Your task to perform on an android device: Search for Mexican restaurants on Maps Image 0: 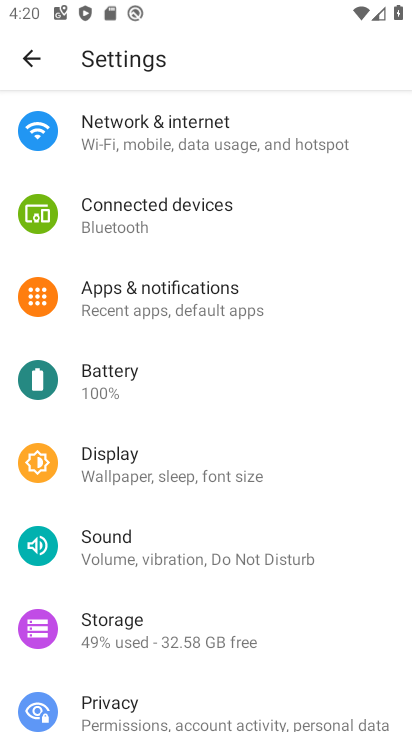
Step 0: press home button
Your task to perform on an android device: Search for Mexican restaurants on Maps Image 1: 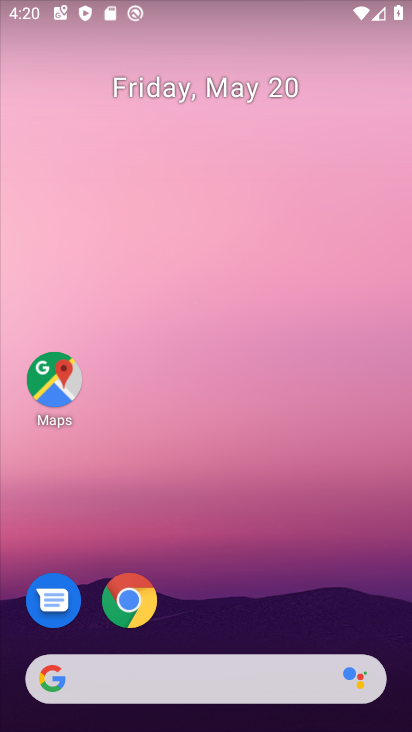
Step 1: click (59, 384)
Your task to perform on an android device: Search for Mexican restaurants on Maps Image 2: 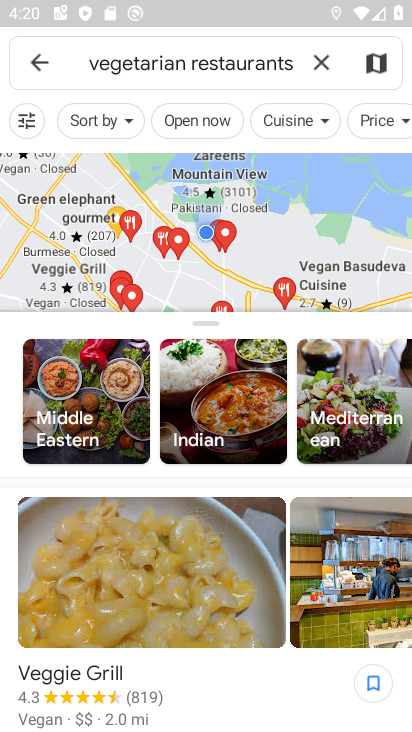
Step 2: click (320, 58)
Your task to perform on an android device: Search for Mexican restaurants on Maps Image 3: 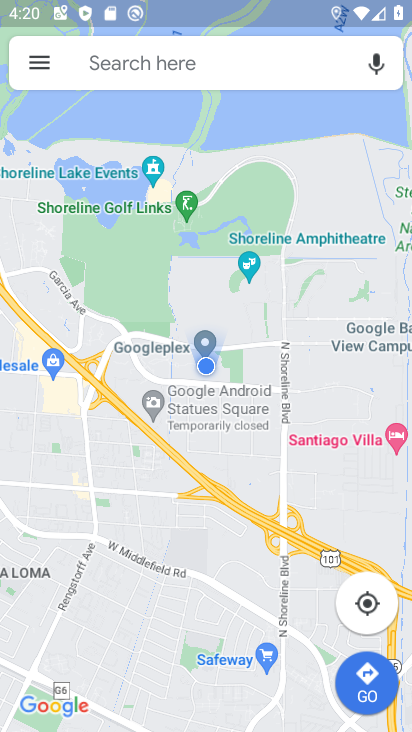
Step 3: click (251, 61)
Your task to perform on an android device: Search for Mexican restaurants on Maps Image 4: 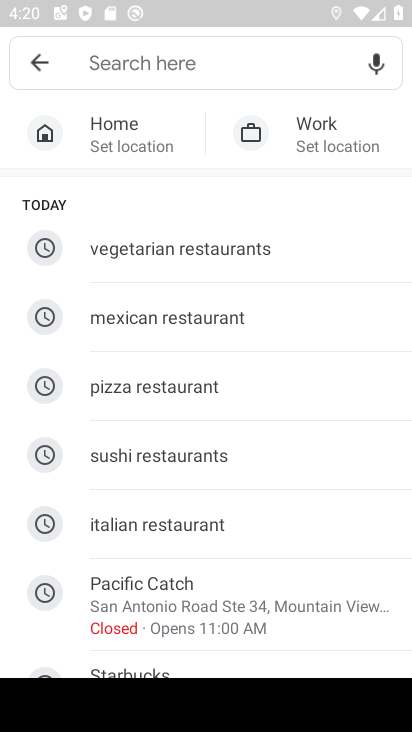
Step 4: click (206, 310)
Your task to perform on an android device: Search for Mexican restaurants on Maps Image 5: 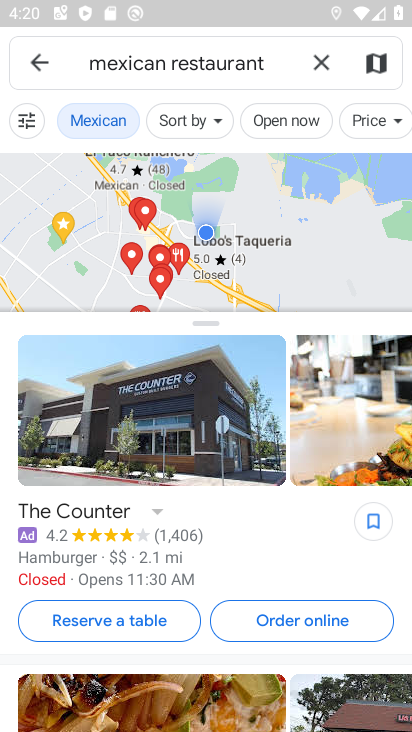
Step 5: task complete